Your task to perform on an android device: open app "Google Find My Device" (install if not already installed) Image 0: 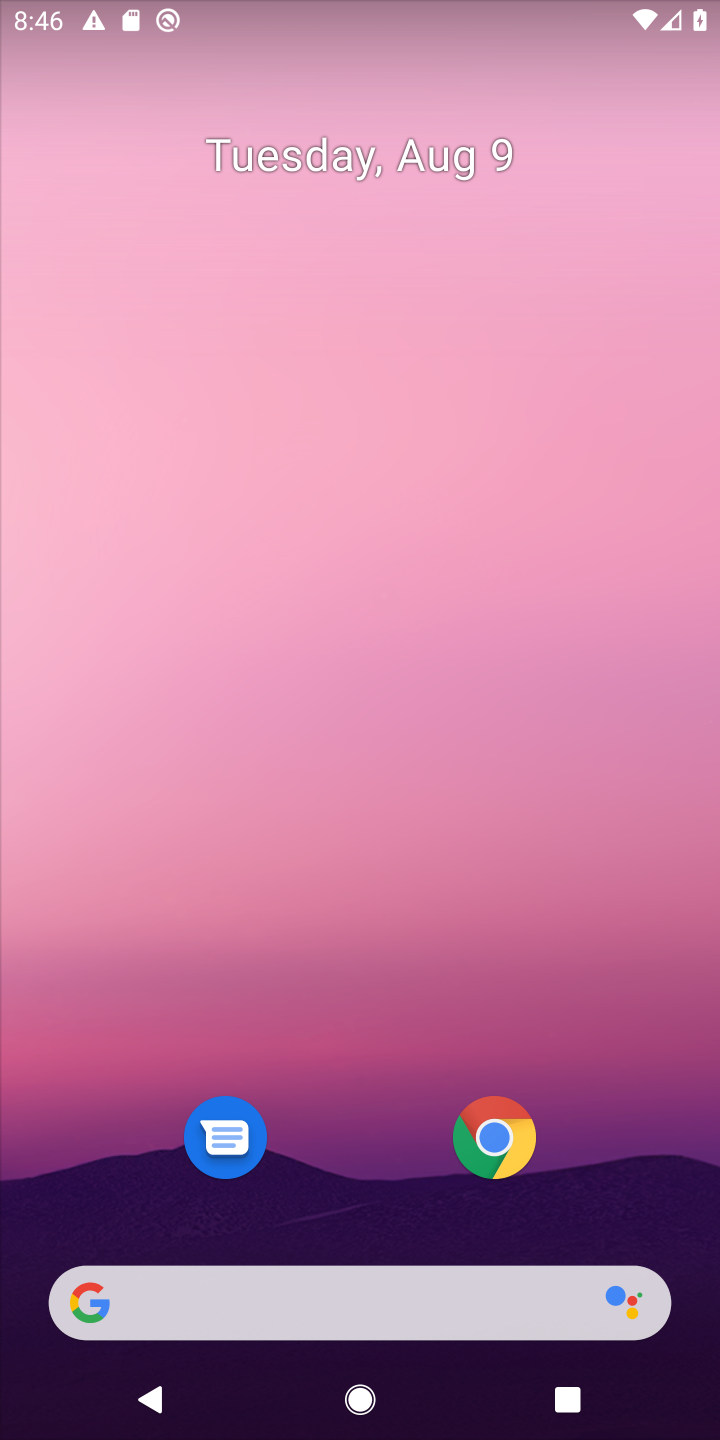
Step 0: press home button
Your task to perform on an android device: open app "Google Find My Device" (install if not already installed) Image 1: 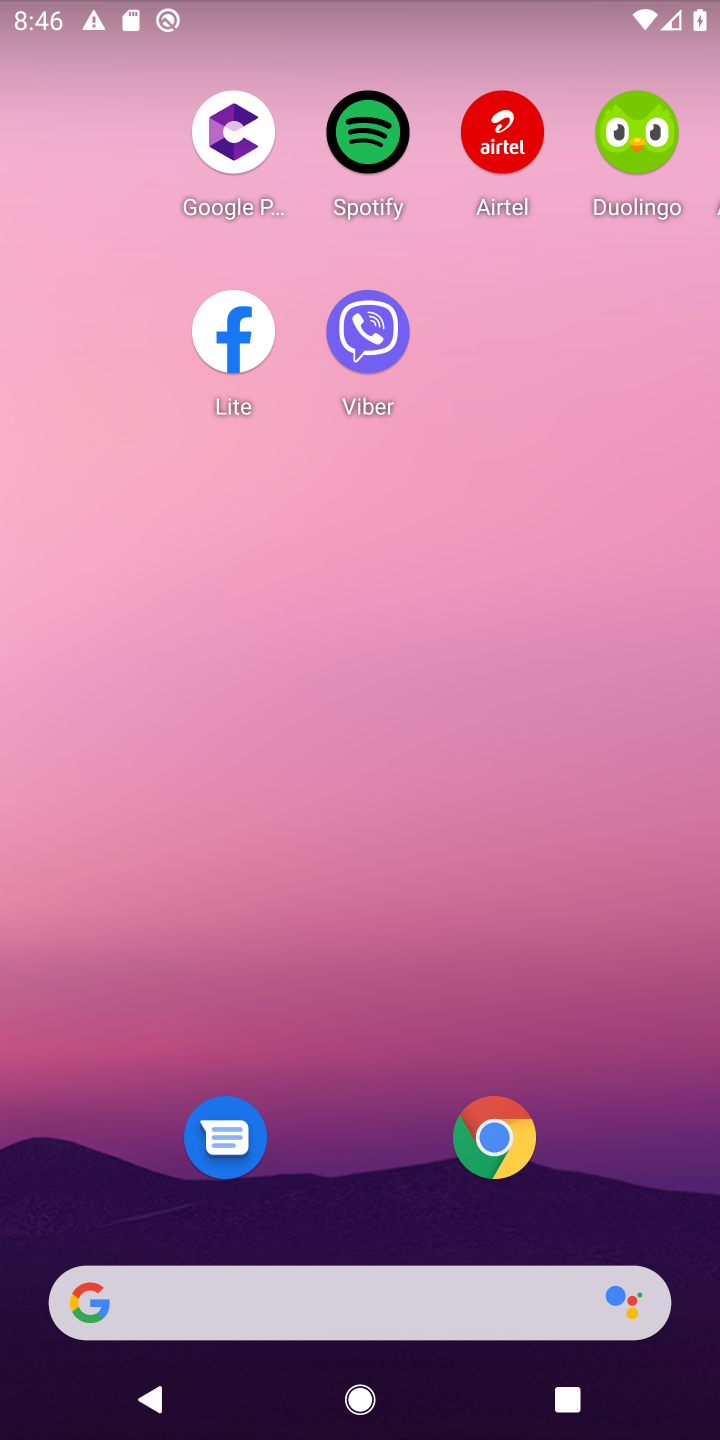
Step 1: drag from (360, 868) to (427, 98)
Your task to perform on an android device: open app "Google Find My Device" (install if not already installed) Image 2: 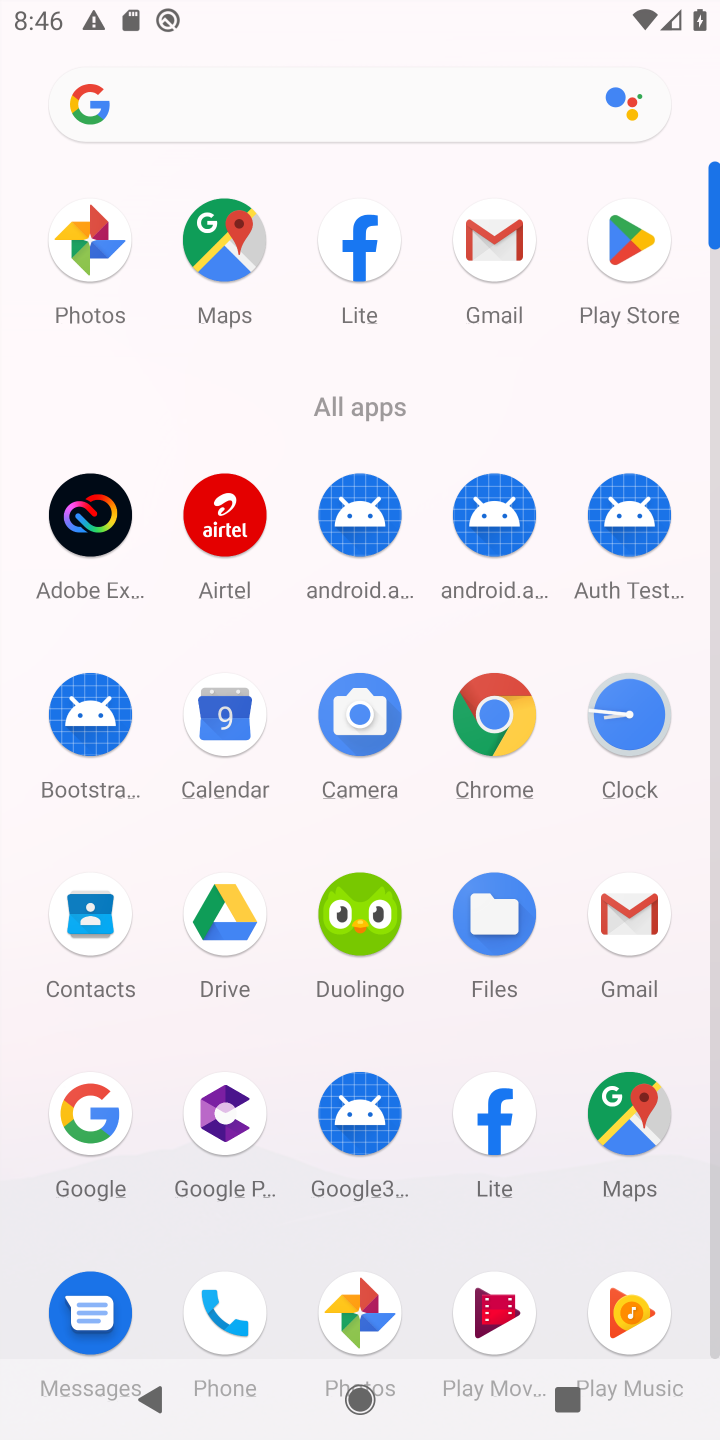
Step 2: click (626, 237)
Your task to perform on an android device: open app "Google Find My Device" (install if not already installed) Image 3: 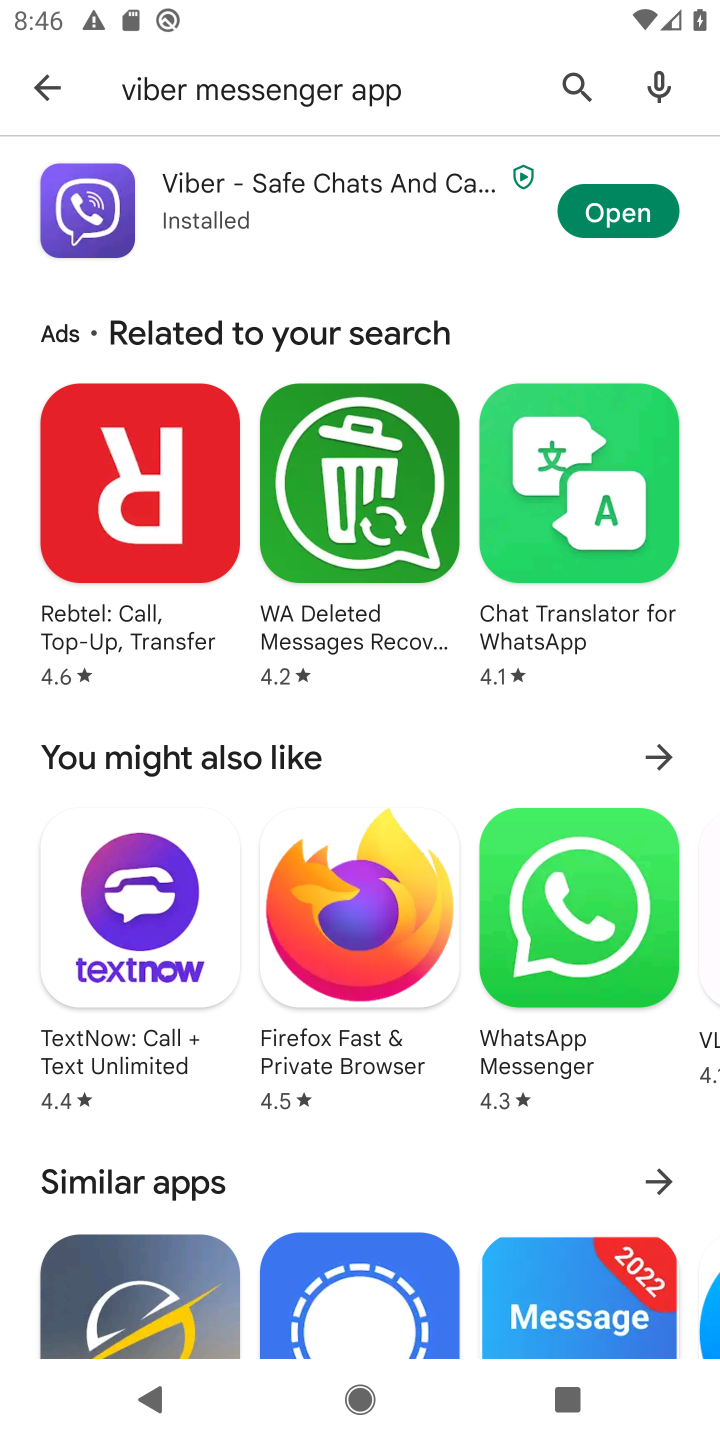
Step 3: click (570, 80)
Your task to perform on an android device: open app "Google Find My Device" (install if not already installed) Image 4: 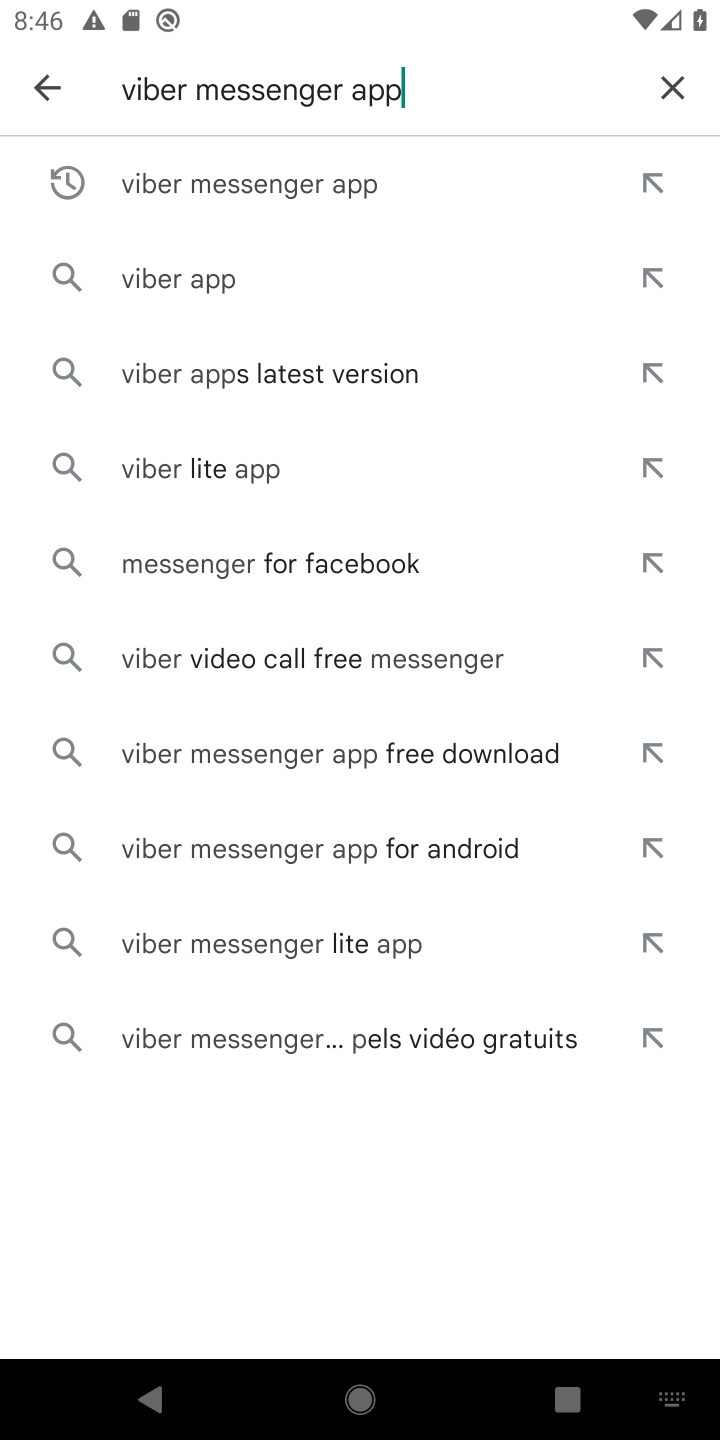
Step 4: click (661, 83)
Your task to perform on an android device: open app "Google Find My Device" (install if not already installed) Image 5: 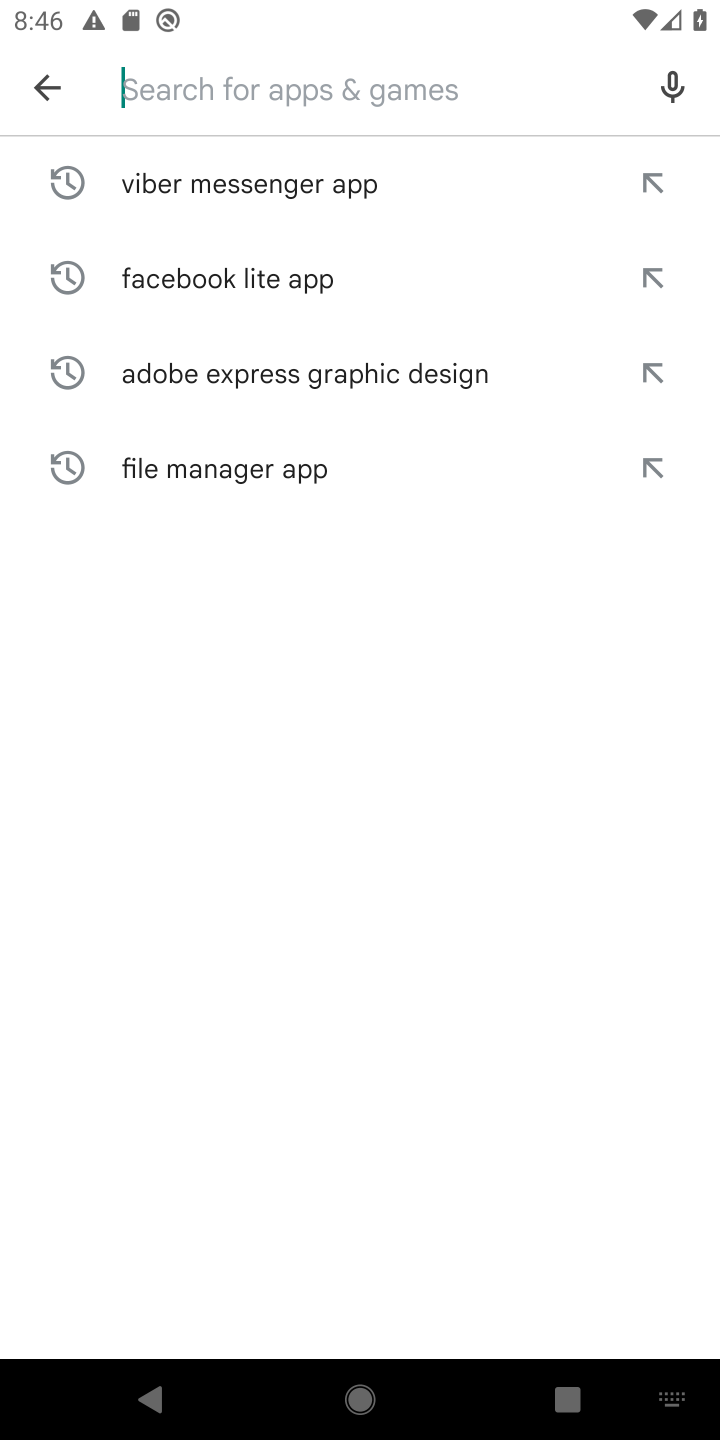
Step 5: type "google find my dwvice"
Your task to perform on an android device: open app "Google Find My Device" (install if not already installed) Image 6: 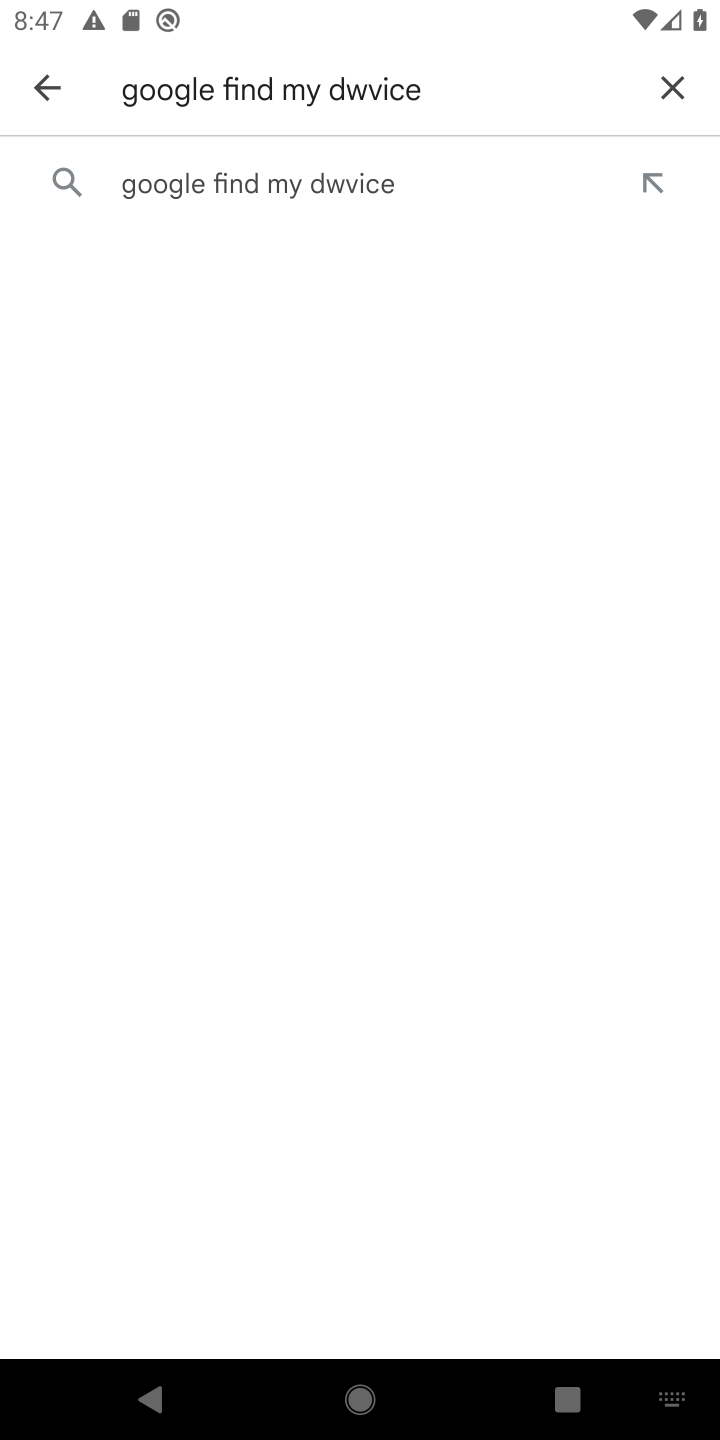
Step 6: click (361, 176)
Your task to perform on an android device: open app "Google Find My Device" (install if not already installed) Image 7: 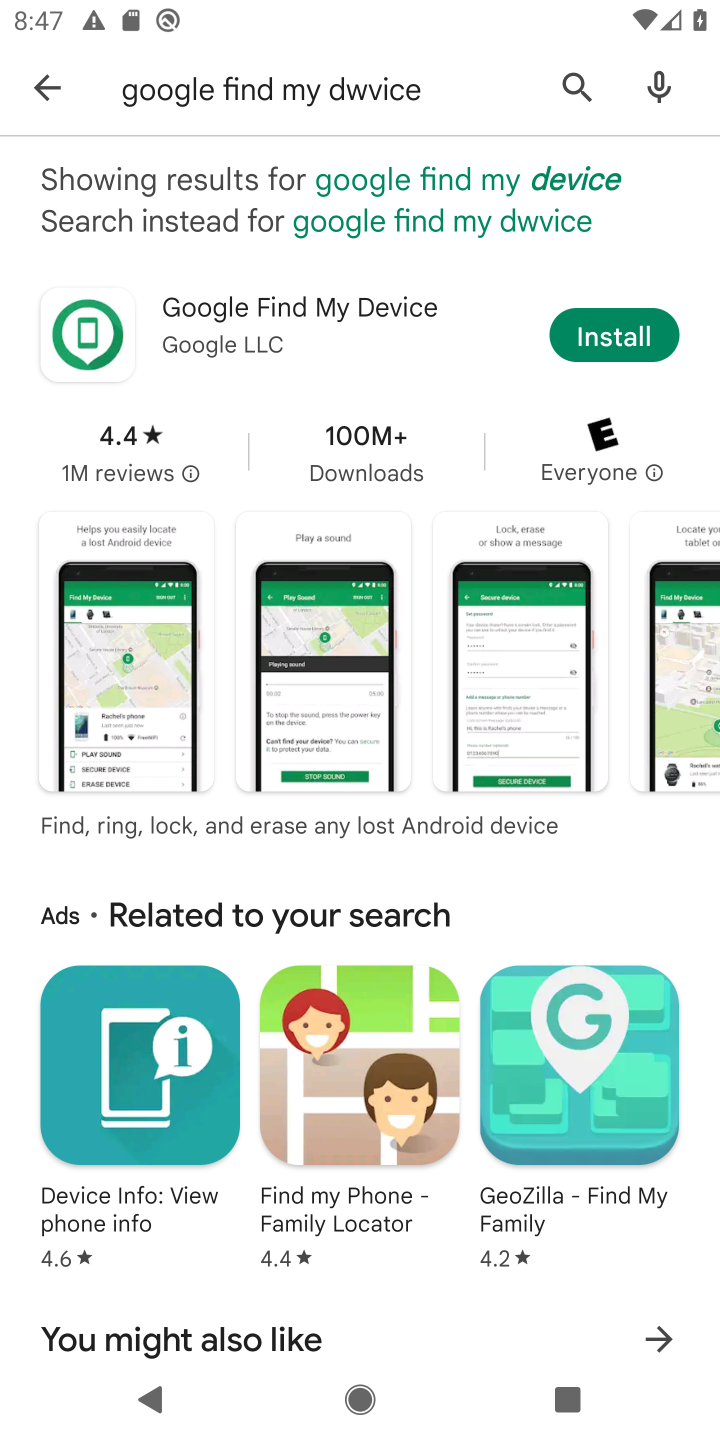
Step 7: click (620, 333)
Your task to perform on an android device: open app "Google Find My Device" (install if not already installed) Image 8: 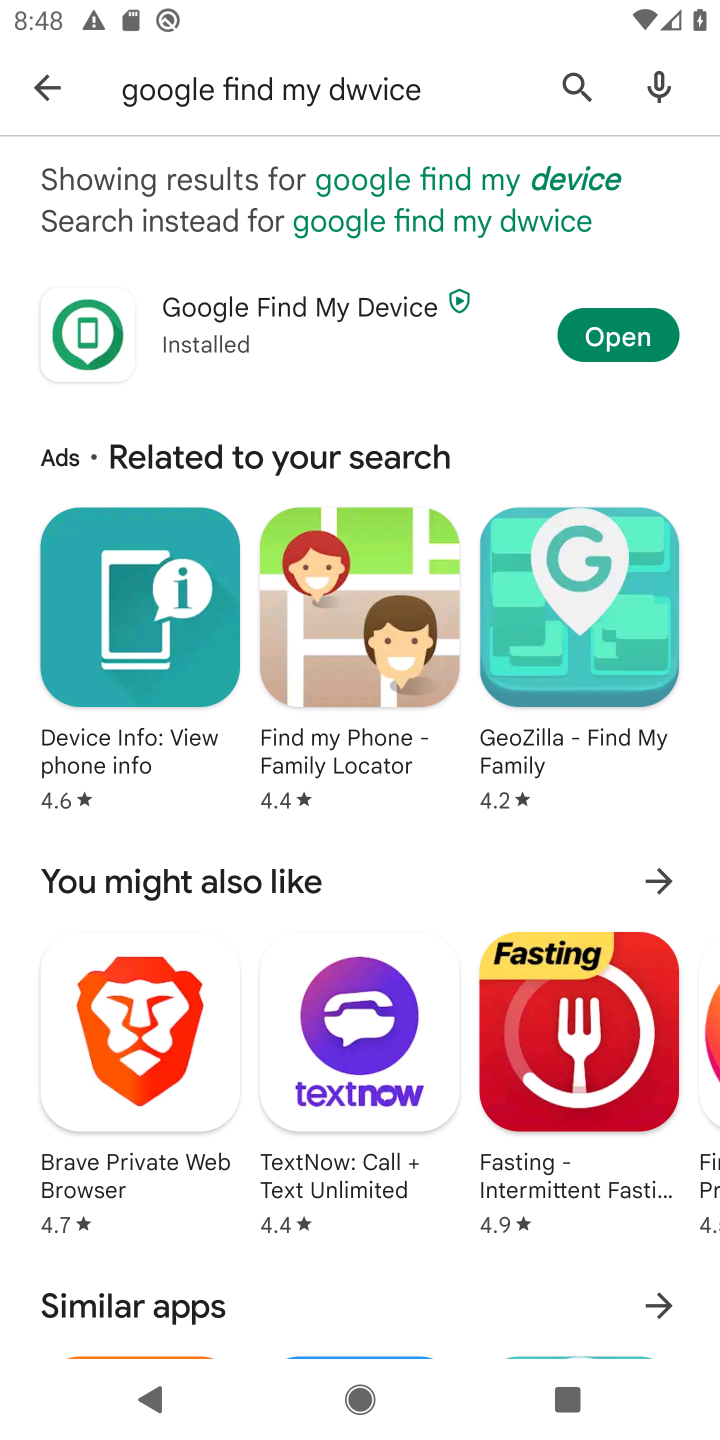
Step 8: click (628, 340)
Your task to perform on an android device: open app "Google Find My Device" (install if not already installed) Image 9: 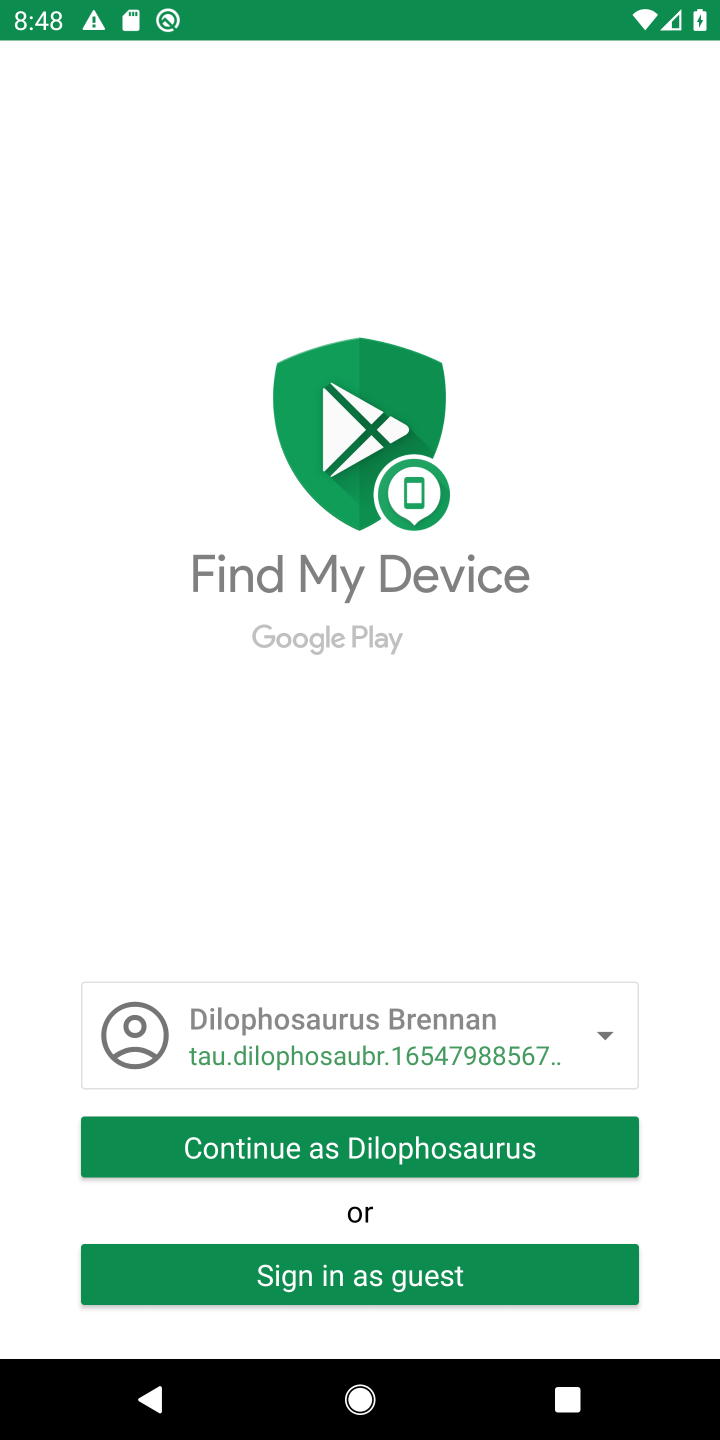
Step 9: task complete